Your task to perform on an android device: Open maps Image 0: 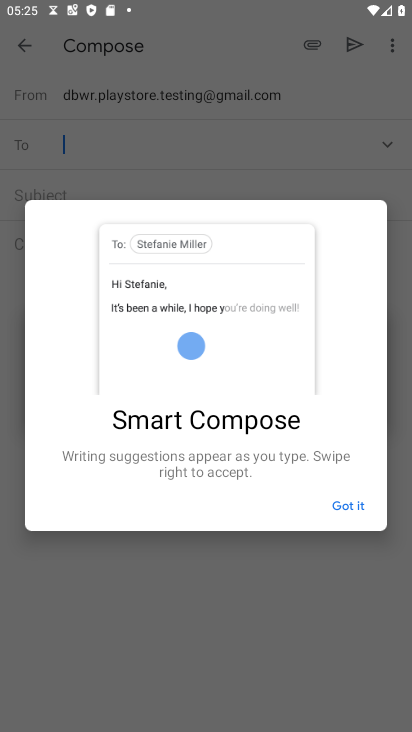
Step 0: press home button
Your task to perform on an android device: Open maps Image 1: 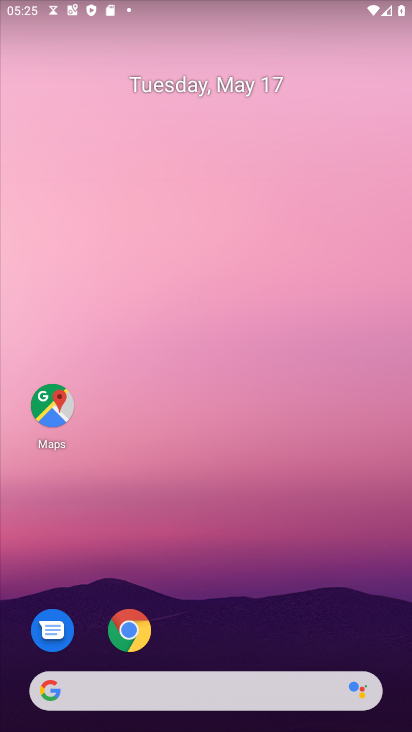
Step 1: click (60, 416)
Your task to perform on an android device: Open maps Image 2: 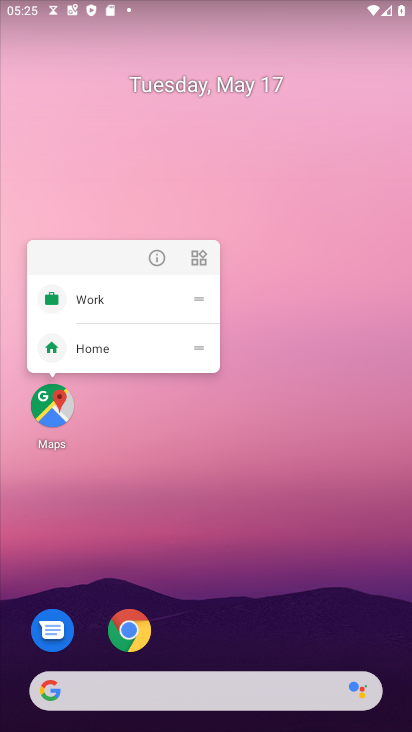
Step 2: click (58, 404)
Your task to perform on an android device: Open maps Image 3: 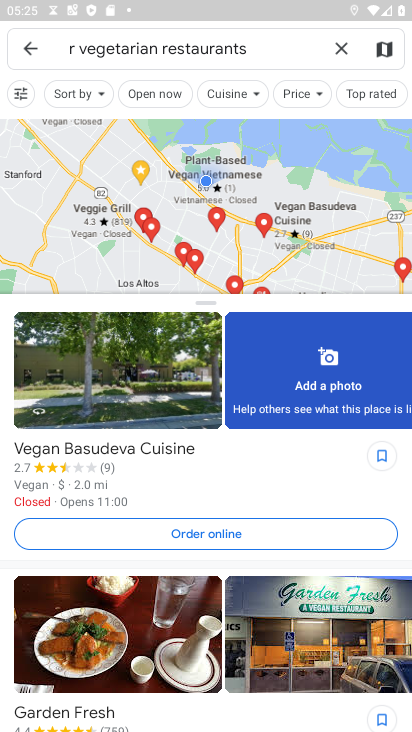
Step 3: click (39, 51)
Your task to perform on an android device: Open maps Image 4: 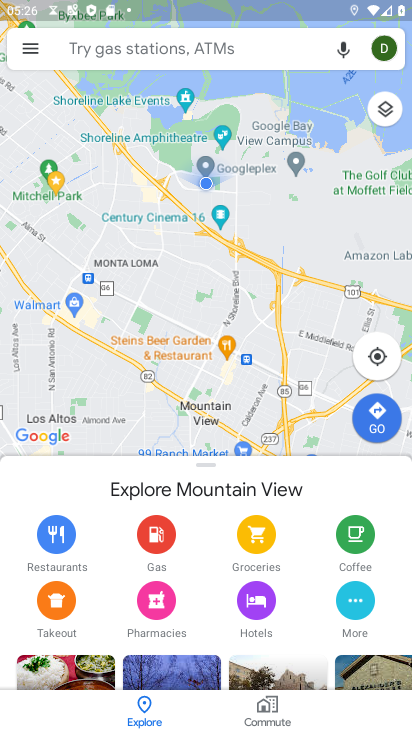
Step 4: task complete